Your task to perform on an android device: Go to ESPN.com Image 0: 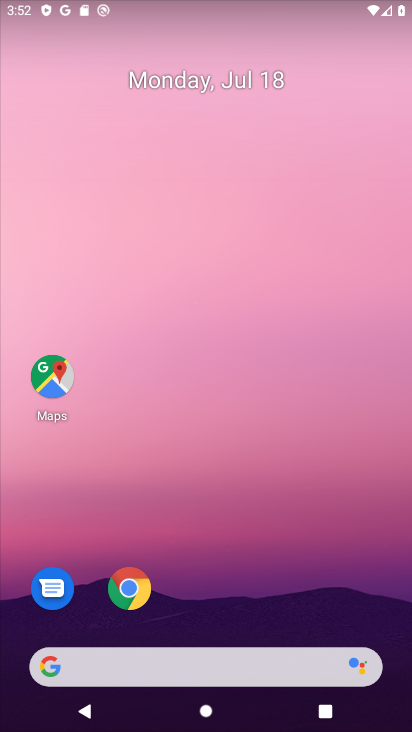
Step 0: drag from (184, 584) to (224, 77)
Your task to perform on an android device: Go to ESPN.com Image 1: 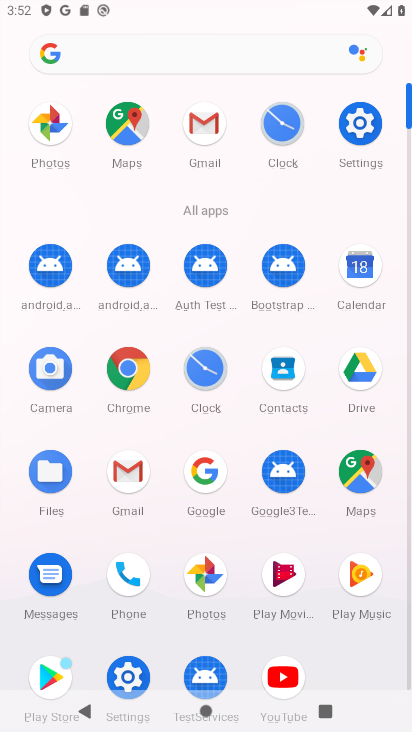
Step 1: click (135, 388)
Your task to perform on an android device: Go to ESPN.com Image 2: 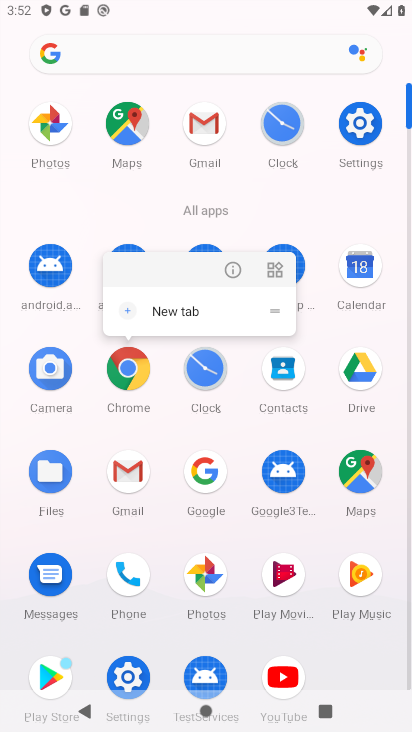
Step 2: click (135, 368)
Your task to perform on an android device: Go to ESPN.com Image 3: 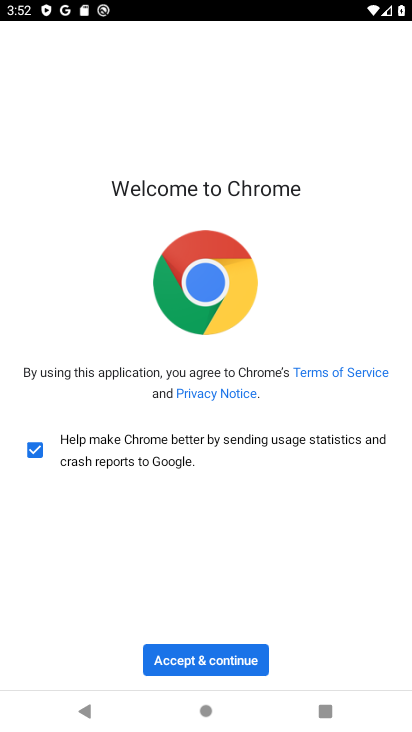
Step 3: click (228, 667)
Your task to perform on an android device: Go to ESPN.com Image 4: 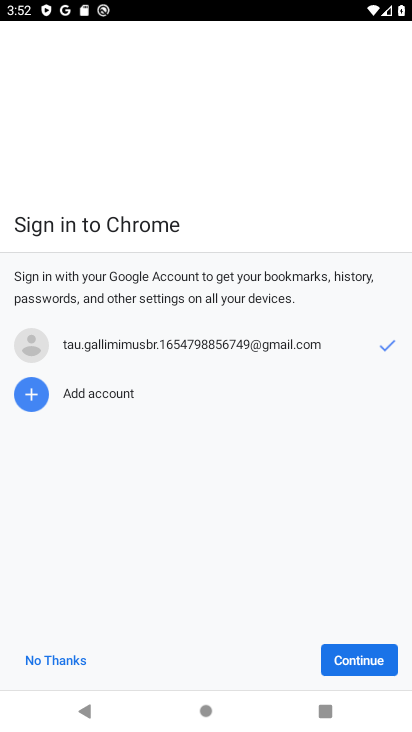
Step 4: click (373, 664)
Your task to perform on an android device: Go to ESPN.com Image 5: 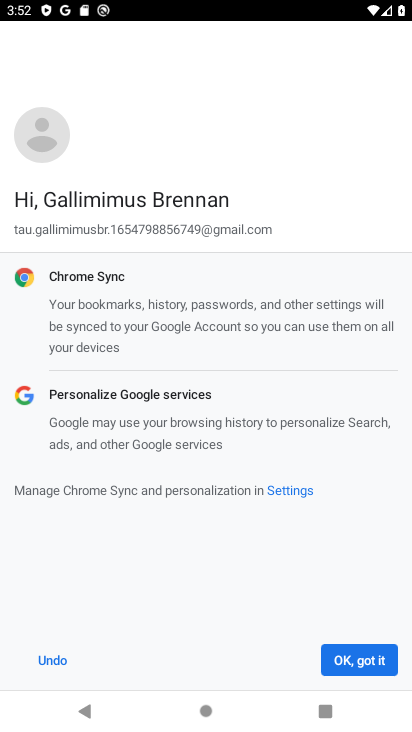
Step 5: click (373, 664)
Your task to perform on an android device: Go to ESPN.com Image 6: 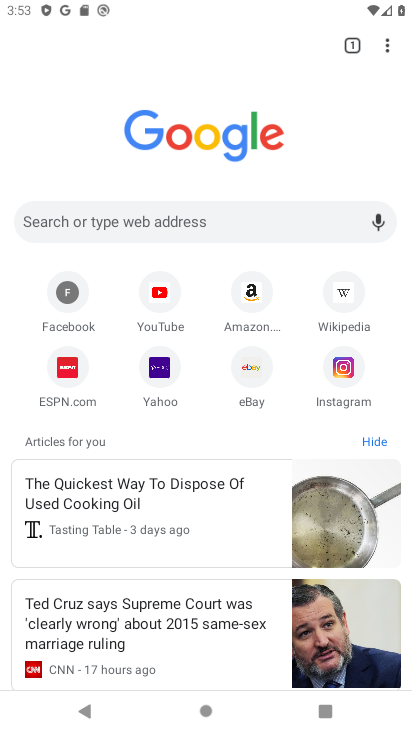
Step 6: click (72, 370)
Your task to perform on an android device: Go to ESPN.com Image 7: 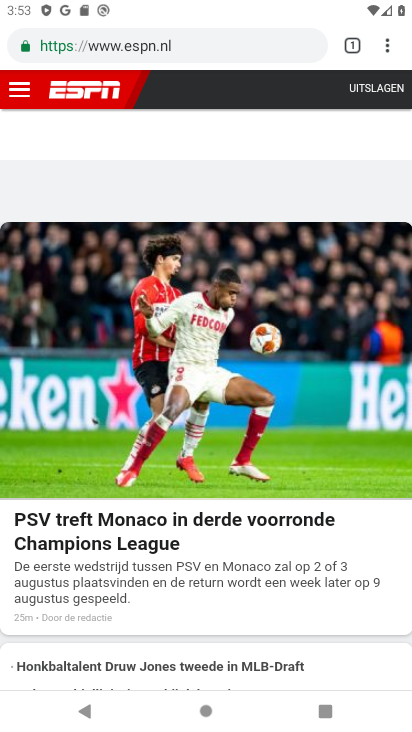
Step 7: task complete